Your task to perform on an android device: change the clock style Image 0: 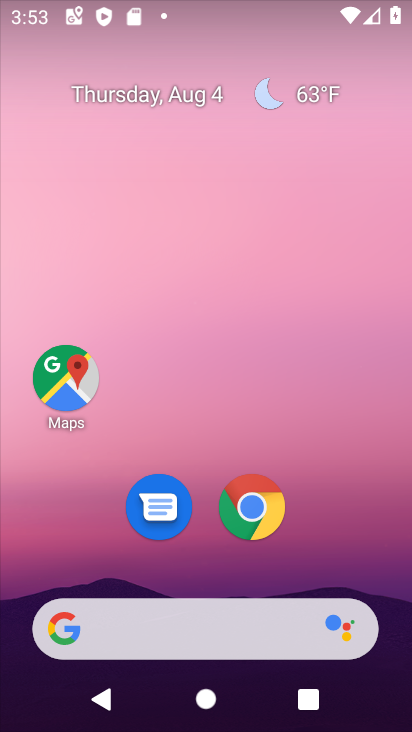
Step 0: drag from (38, 721) to (143, 15)
Your task to perform on an android device: change the clock style Image 1: 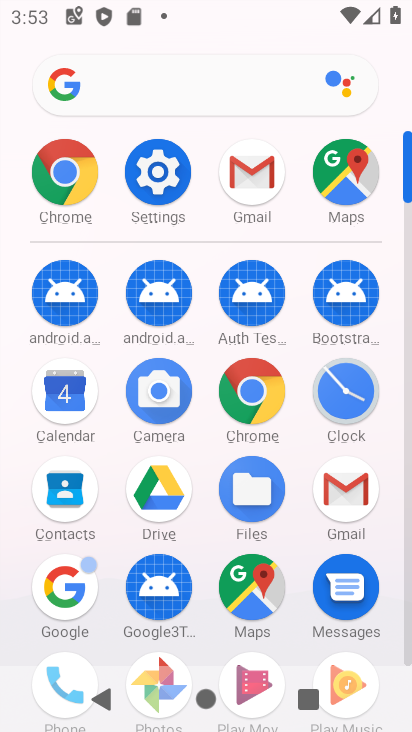
Step 1: drag from (142, 456) to (129, 100)
Your task to perform on an android device: change the clock style Image 2: 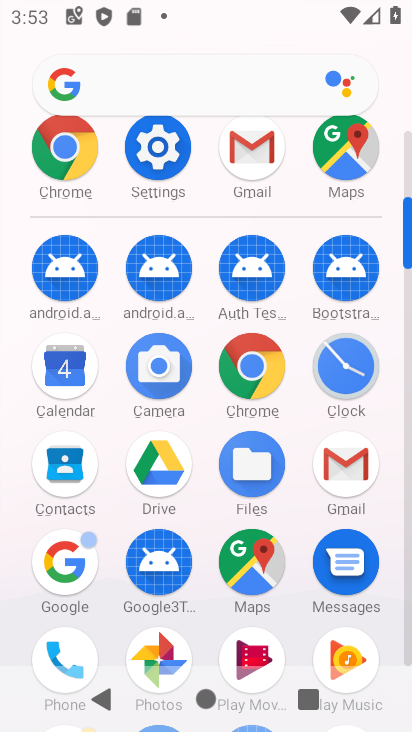
Step 2: drag from (175, 624) to (180, 251)
Your task to perform on an android device: change the clock style Image 3: 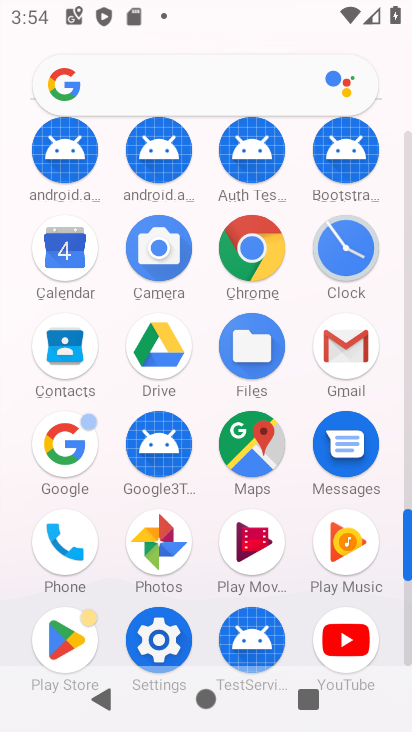
Step 3: drag from (198, 141) to (219, 624)
Your task to perform on an android device: change the clock style Image 4: 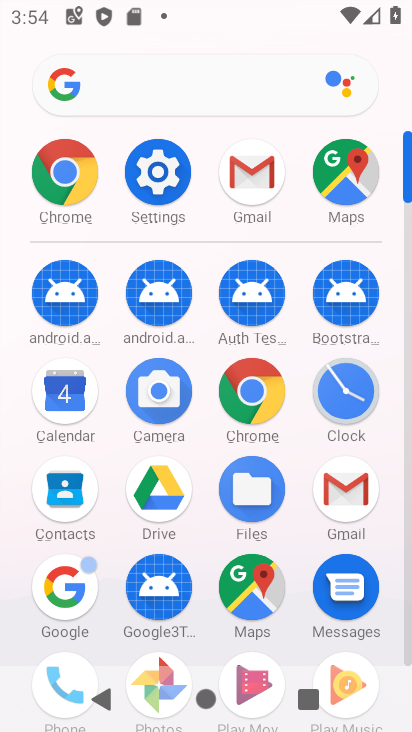
Step 4: click (362, 392)
Your task to perform on an android device: change the clock style Image 5: 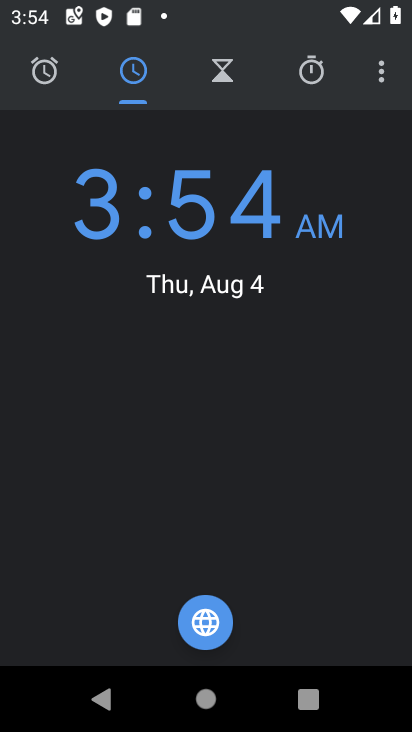
Step 5: click (383, 69)
Your task to perform on an android device: change the clock style Image 6: 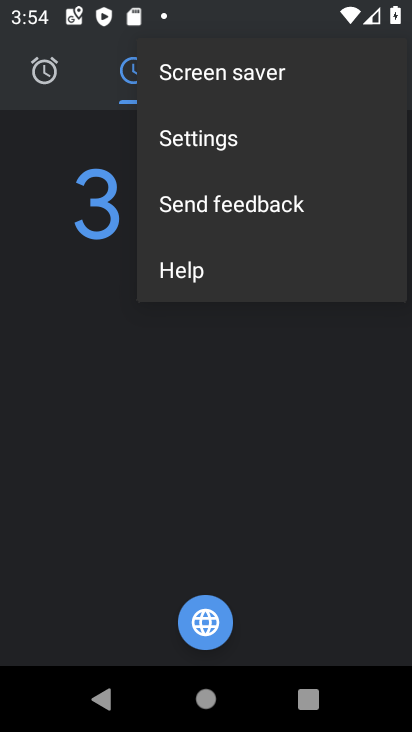
Step 6: click (247, 133)
Your task to perform on an android device: change the clock style Image 7: 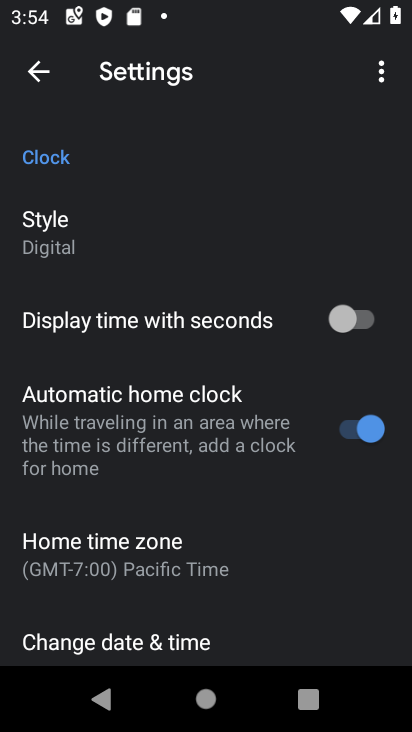
Step 7: task complete